Your task to perform on an android device: toggle notification dots Image 0: 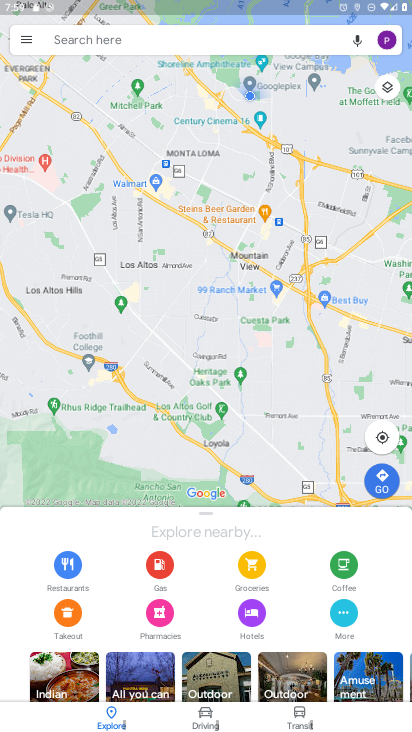
Step 0: press home button
Your task to perform on an android device: toggle notification dots Image 1: 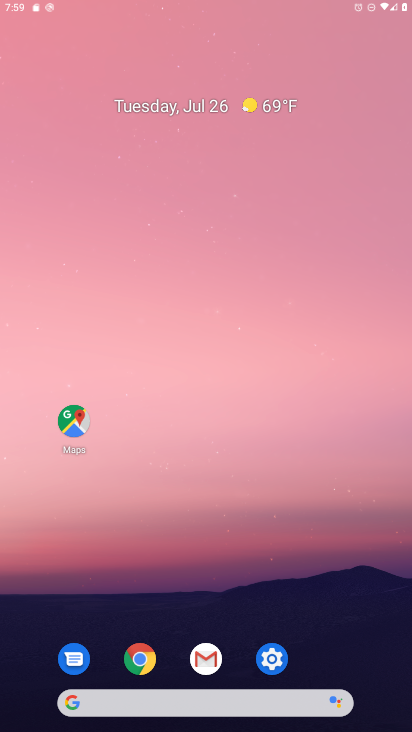
Step 1: click (120, 42)
Your task to perform on an android device: toggle notification dots Image 2: 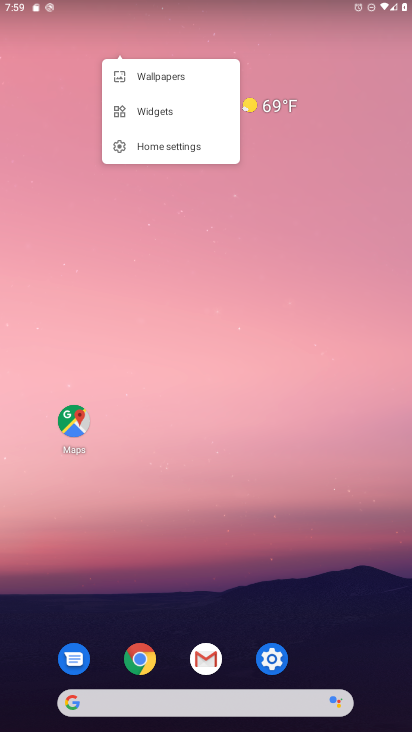
Step 2: click (73, 427)
Your task to perform on an android device: toggle notification dots Image 3: 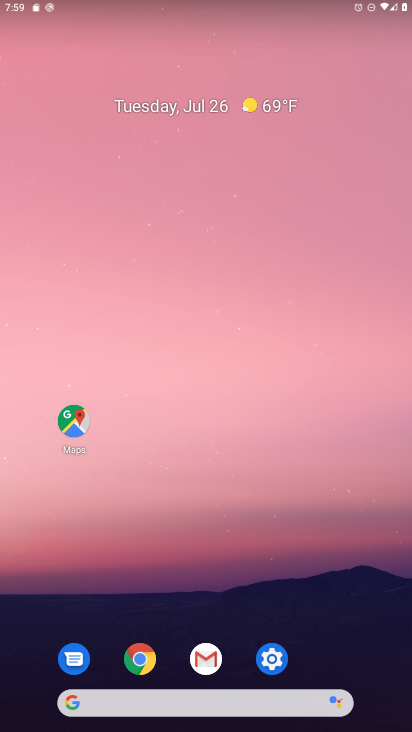
Step 3: click (73, 416)
Your task to perform on an android device: toggle notification dots Image 4: 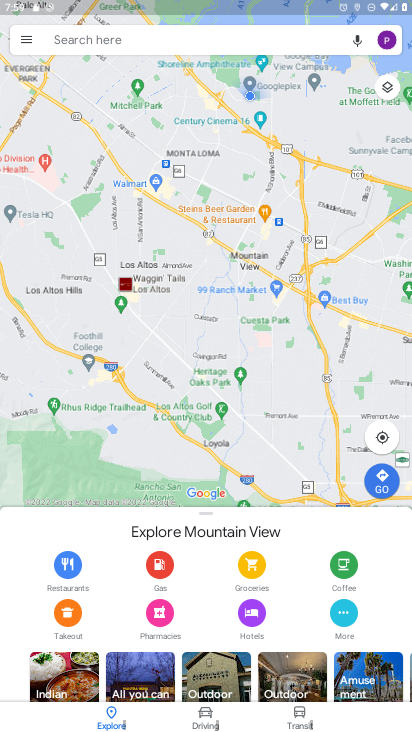
Step 4: click (100, 42)
Your task to perform on an android device: toggle notification dots Image 5: 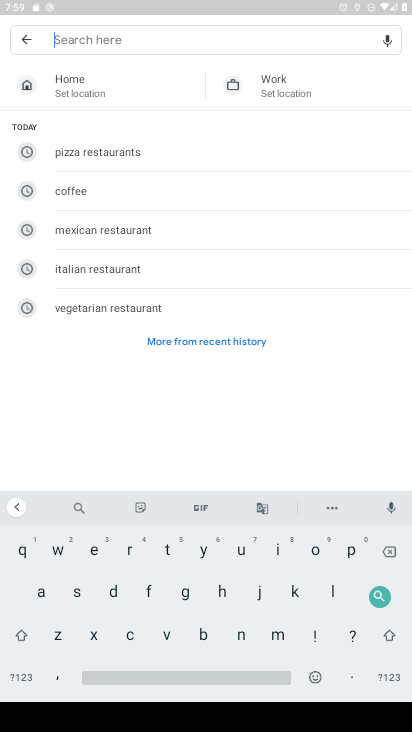
Step 5: press home button
Your task to perform on an android device: toggle notification dots Image 6: 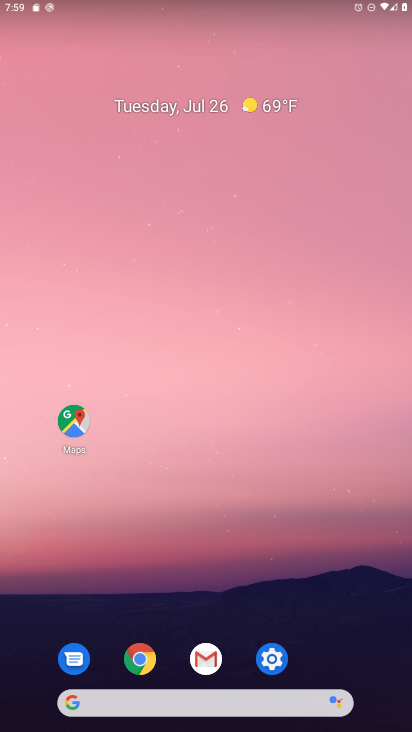
Step 6: click (278, 654)
Your task to perform on an android device: toggle notification dots Image 7: 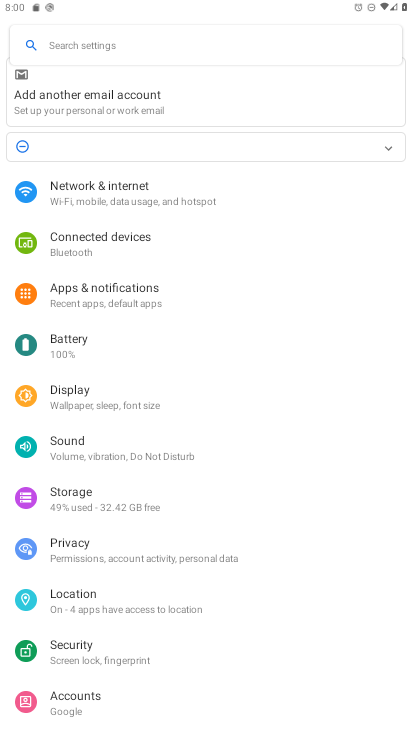
Step 7: click (105, 53)
Your task to perform on an android device: toggle notification dots Image 8: 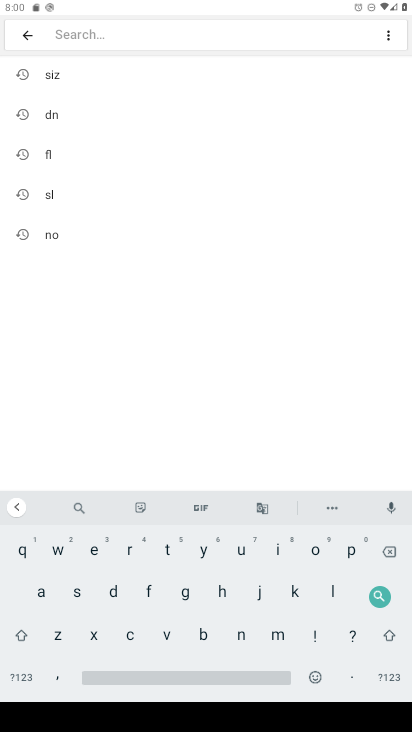
Step 8: click (235, 635)
Your task to perform on an android device: toggle notification dots Image 9: 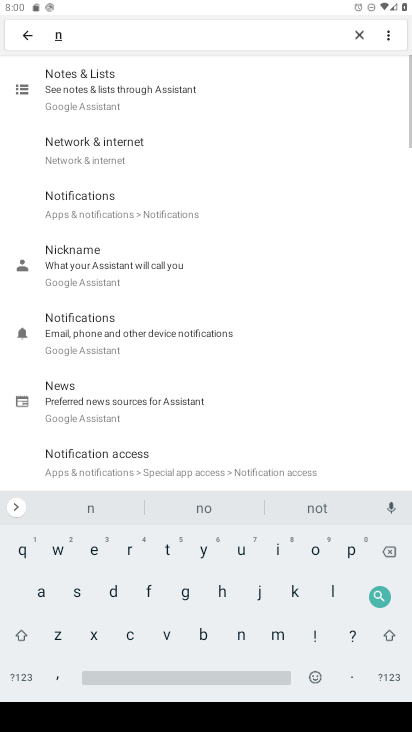
Step 9: click (321, 547)
Your task to perform on an android device: toggle notification dots Image 10: 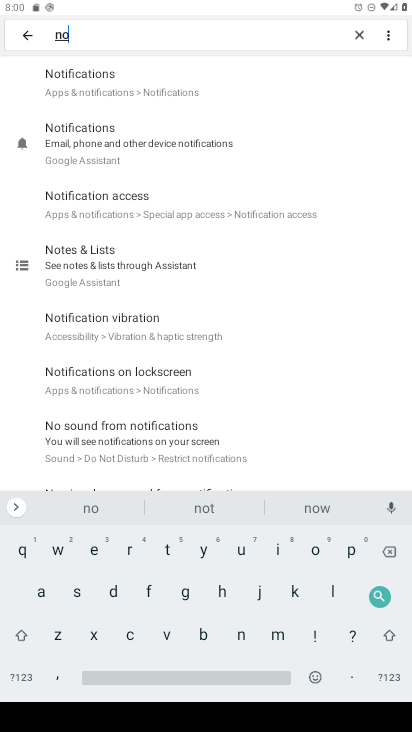
Step 10: click (112, 89)
Your task to perform on an android device: toggle notification dots Image 11: 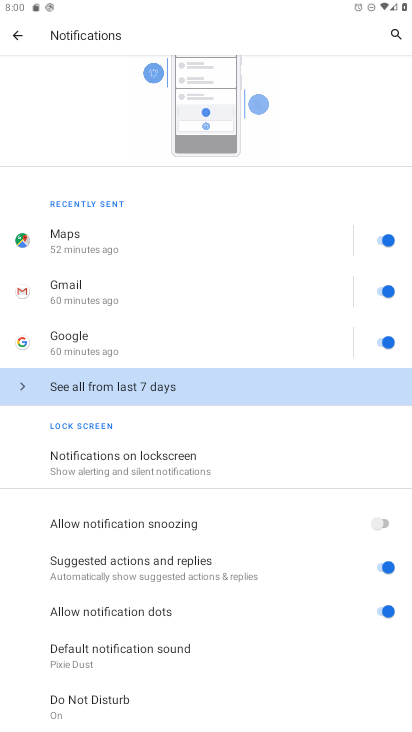
Step 11: click (138, 467)
Your task to perform on an android device: toggle notification dots Image 12: 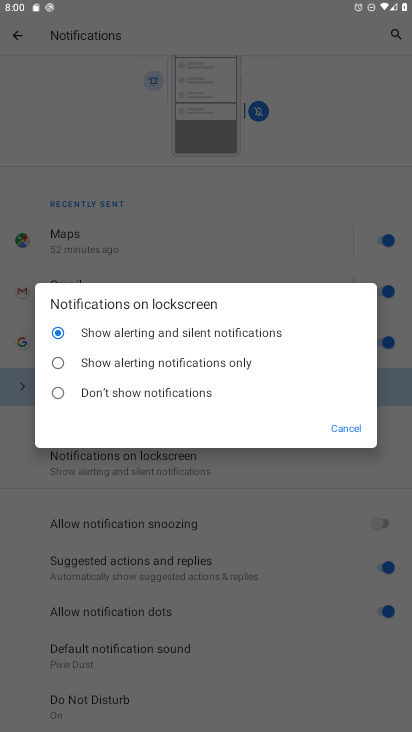
Step 12: task complete